Your task to perform on an android device: Show me productivity apps on the Play Store Image 0: 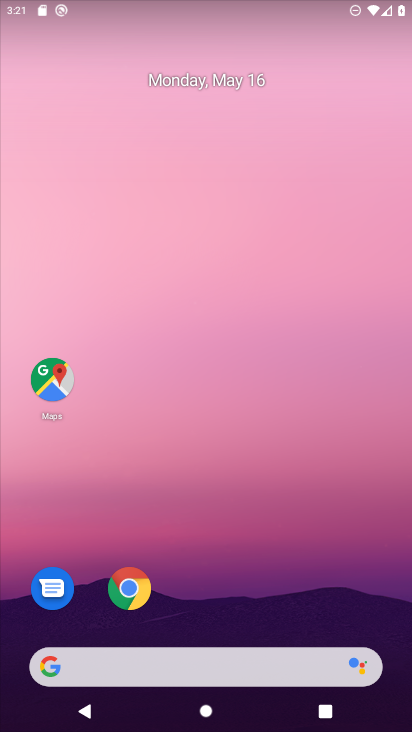
Step 0: drag from (347, 622) to (364, 11)
Your task to perform on an android device: Show me productivity apps on the Play Store Image 1: 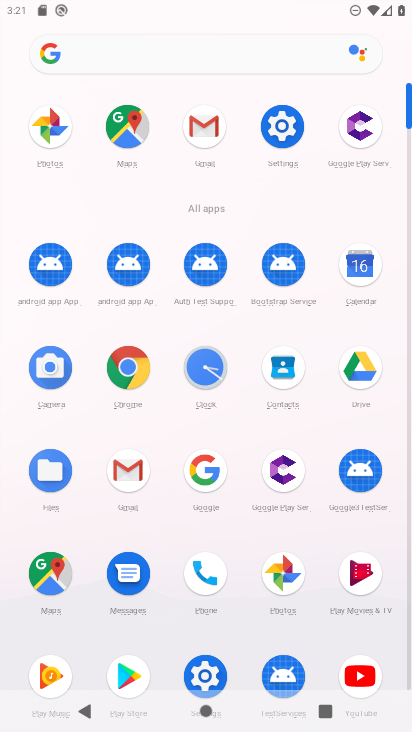
Step 1: click (125, 666)
Your task to perform on an android device: Show me productivity apps on the Play Store Image 2: 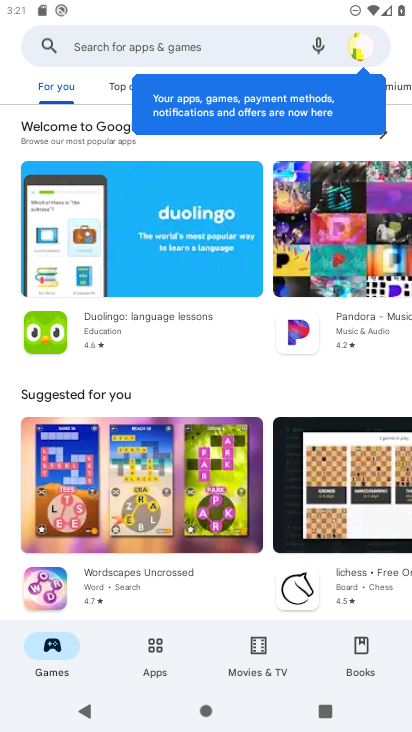
Step 2: click (155, 653)
Your task to perform on an android device: Show me productivity apps on the Play Store Image 3: 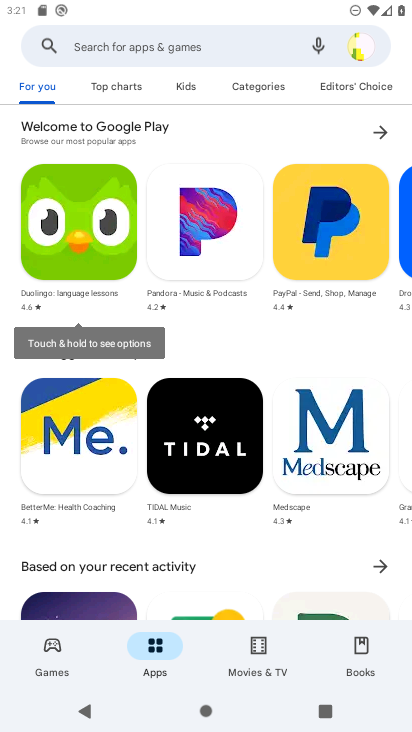
Step 3: click (255, 85)
Your task to perform on an android device: Show me productivity apps on the Play Store Image 4: 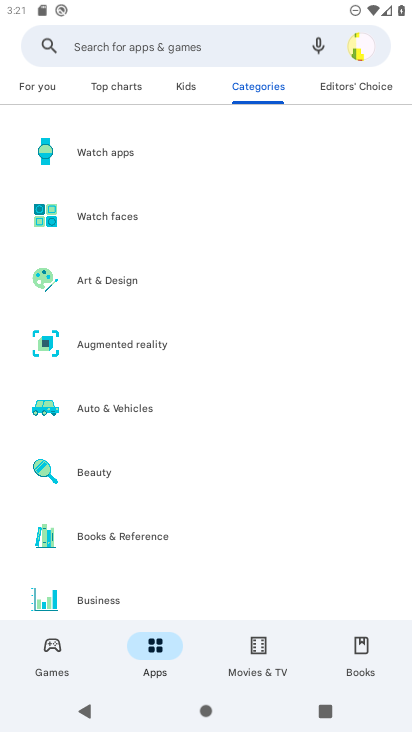
Step 4: drag from (240, 488) to (258, 98)
Your task to perform on an android device: Show me productivity apps on the Play Store Image 5: 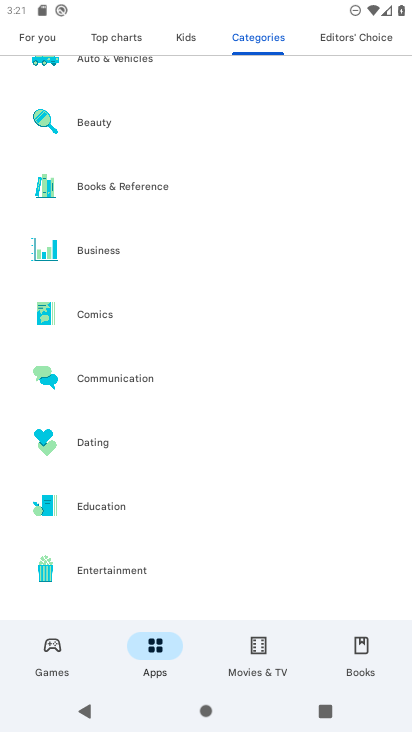
Step 5: drag from (234, 439) to (246, 77)
Your task to perform on an android device: Show me productivity apps on the Play Store Image 6: 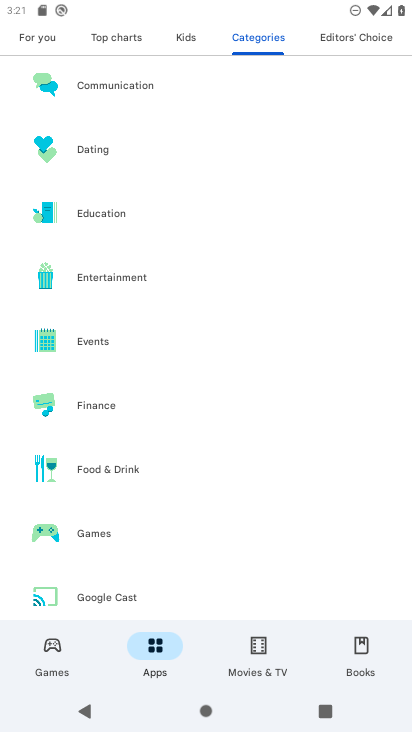
Step 6: drag from (182, 491) to (226, 90)
Your task to perform on an android device: Show me productivity apps on the Play Store Image 7: 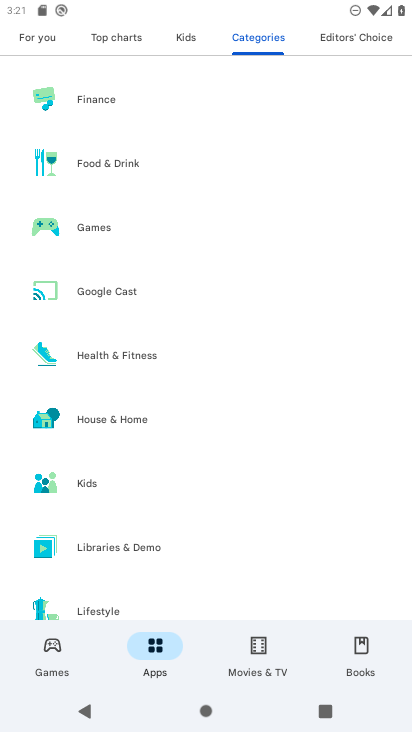
Step 7: drag from (142, 475) to (183, 83)
Your task to perform on an android device: Show me productivity apps on the Play Store Image 8: 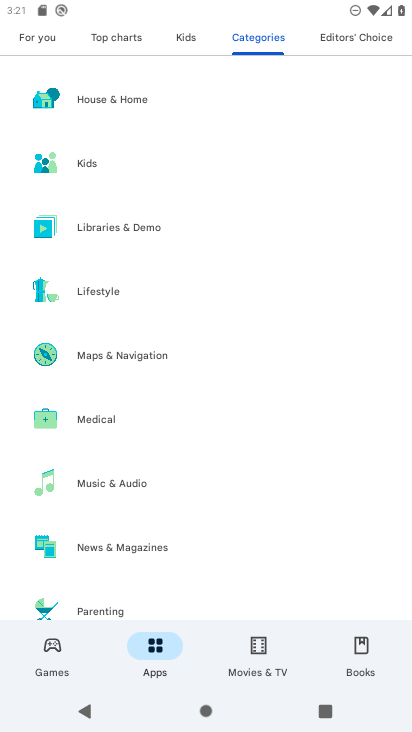
Step 8: drag from (162, 464) to (188, 97)
Your task to perform on an android device: Show me productivity apps on the Play Store Image 9: 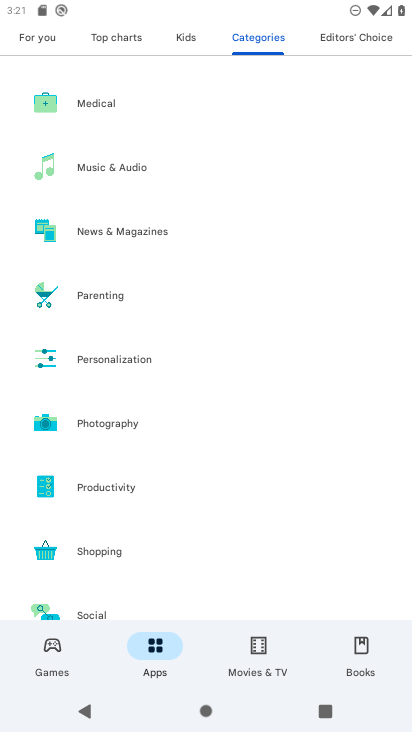
Step 9: click (101, 486)
Your task to perform on an android device: Show me productivity apps on the Play Store Image 10: 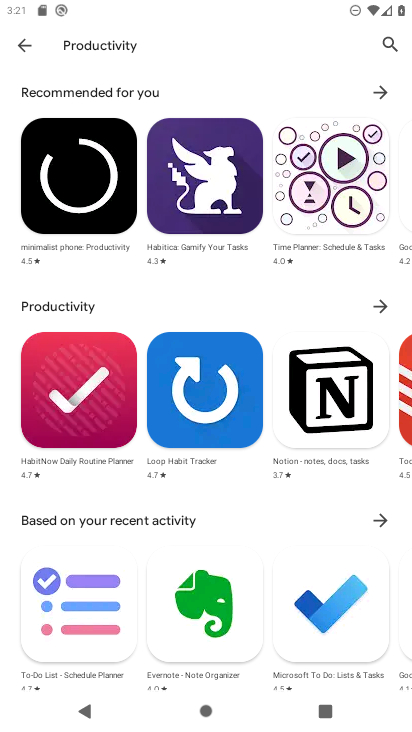
Step 10: task complete